Your task to perform on an android device: Empty the shopping cart on bestbuy.com. Add logitech g pro to the cart on bestbuy.com Image 0: 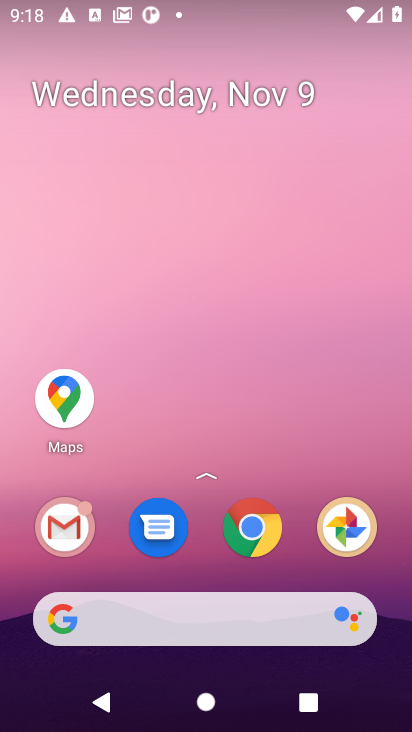
Step 0: click (265, 531)
Your task to perform on an android device: Empty the shopping cart on bestbuy.com. Add logitech g pro to the cart on bestbuy.com Image 1: 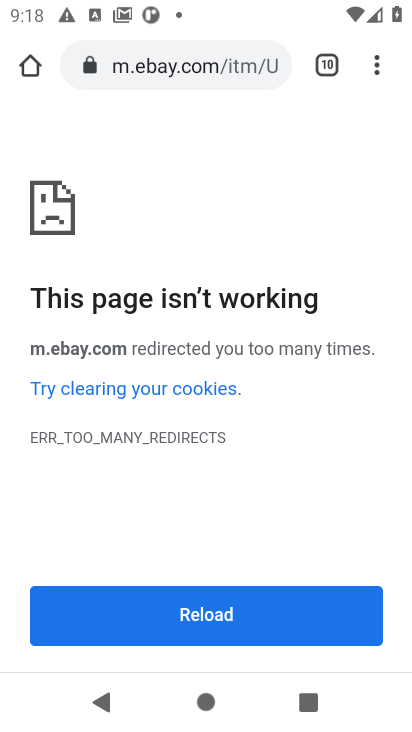
Step 1: click (199, 74)
Your task to perform on an android device: Empty the shopping cart on bestbuy.com. Add logitech g pro to the cart on bestbuy.com Image 2: 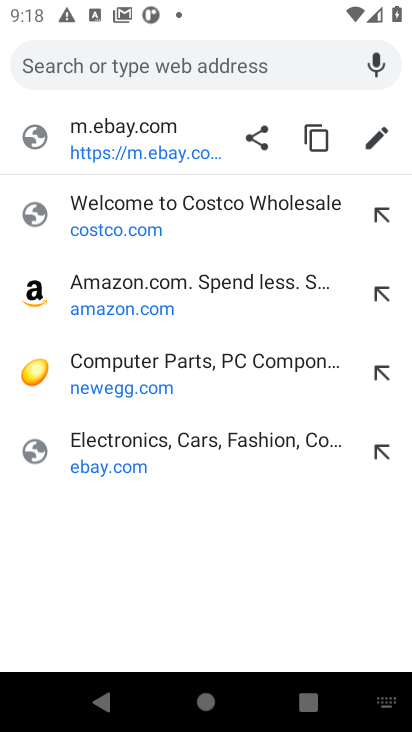
Step 2: type "bestbuy.com"
Your task to perform on an android device: Empty the shopping cart on bestbuy.com. Add logitech g pro to the cart on bestbuy.com Image 3: 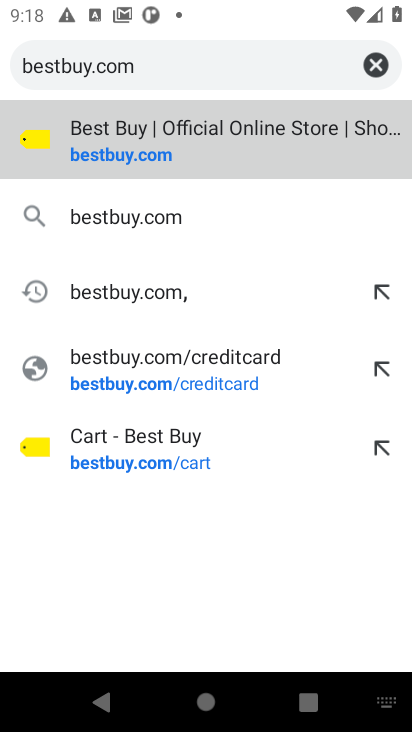
Step 3: click (146, 161)
Your task to perform on an android device: Empty the shopping cart on bestbuy.com. Add logitech g pro to the cart on bestbuy.com Image 4: 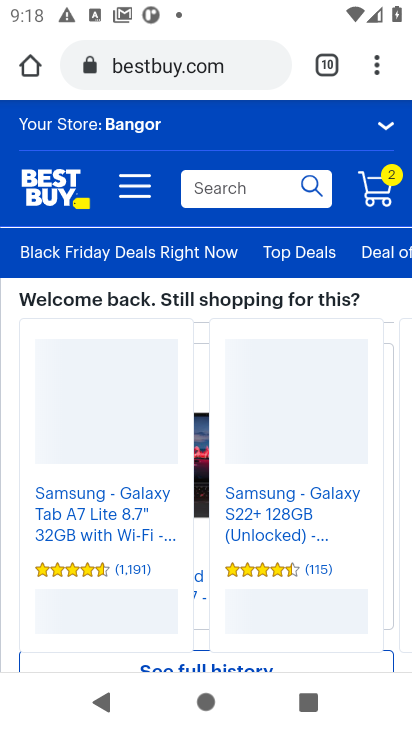
Step 4: click (371, 191)
Your task to perform on an android device: Empty the shopping cart on bestbuy.com. Add logitech g pro to the cart on bestbuy.com Image 5: 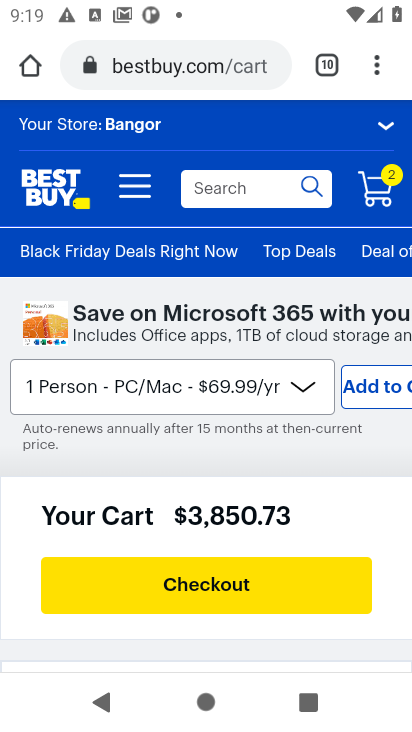
Step 5: drag from (254, 446) to (255, 234)
Your task to perform on an android device: Empty the shopping cart on bestbuy.com. Add logitech g pro to the cart on bestbuy.com Image 6: 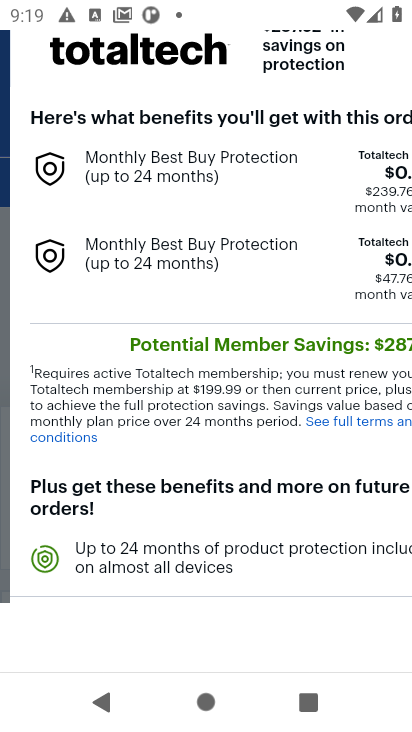
Step 6: drag from (237, 552) to (245, 224)
Your task to perform on an android device: Empty the shopping cart on bestbuy.com. Add logitech g pro to the cart on bestbuy.com Image 7: 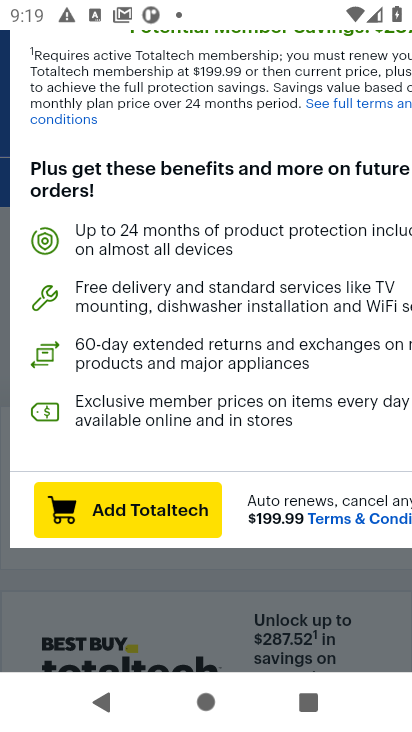
Step 7: click (360, 576)
Your task to perform on an android device: Empty the shopping cart on bestbuy.com. Add logitech g pro to the cart on bestbuy.com Image 8: 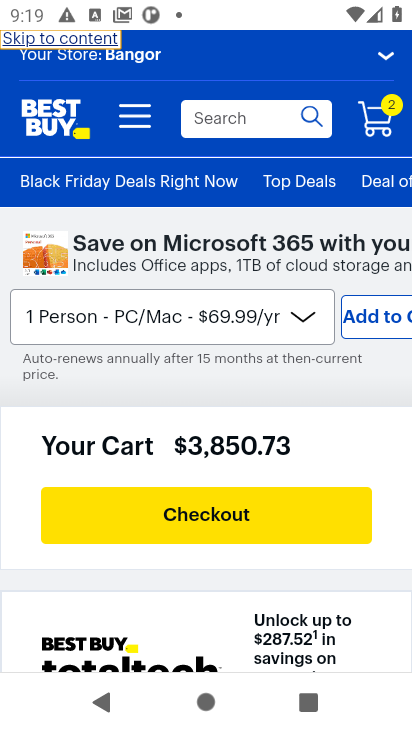
Step 8: drag from (205, 556) to (203, 247)
Your task to perform on an android device: Empty the shopping cart on bestbuy.com. Add logitech g pro to the cart on bestbuy.com Image 9: 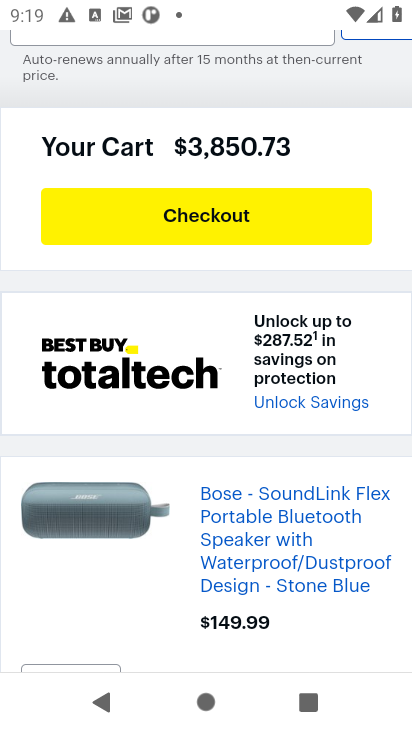
Step 9: drag from (188, 515) to (196, 287)
Your task to perform on an android device: Empty the shopping cart on bestbuy.com. Add logitech g pro to the cart on bestbuy.com Image 10: 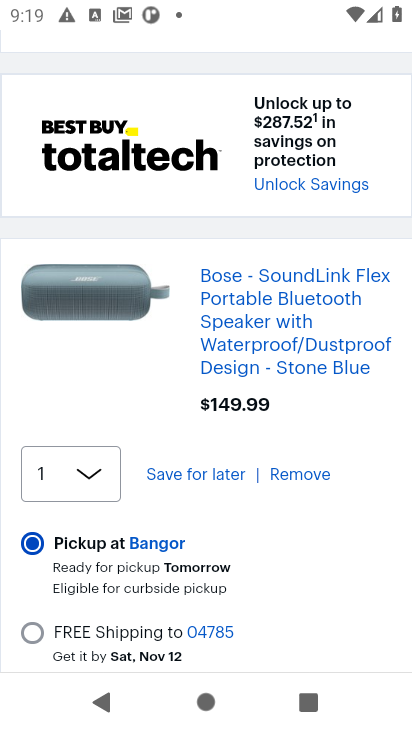
Step 10: click (289, 478)
Your task to perform on an android device: Empty the shopping cart on bestbuy.com. Add logitech g pro to the cart on bestbuy.com Image 11: 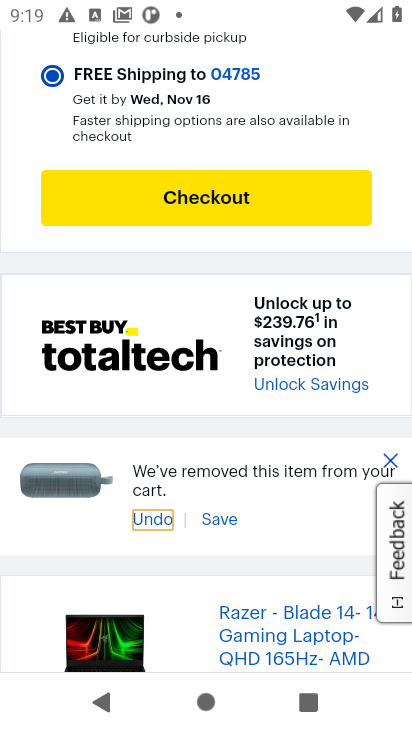
Step 11: drag from (210, 540) to (213, 220)
Your task to perform on an android device: Empty the shopping cart on bestbuy.com. Add logitech g pro to the cart on bestbuy.com Image 12: 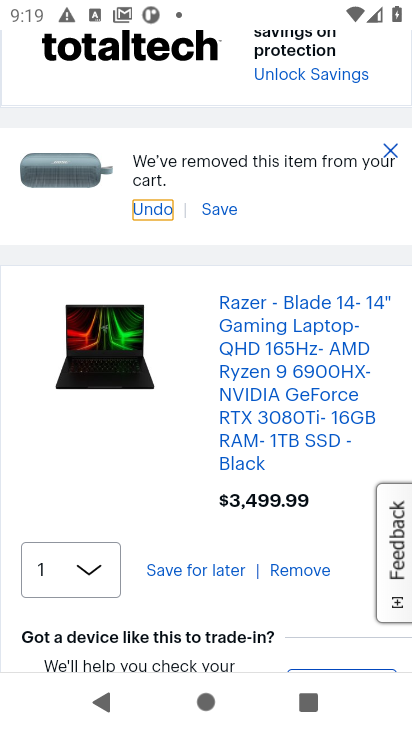
Step 12: click (284, 577)
Your task to perform on an android device: Empty the shopping cart on bestbuy.com. Add logitech g pro to the cart on bestbuy.com Image 13: 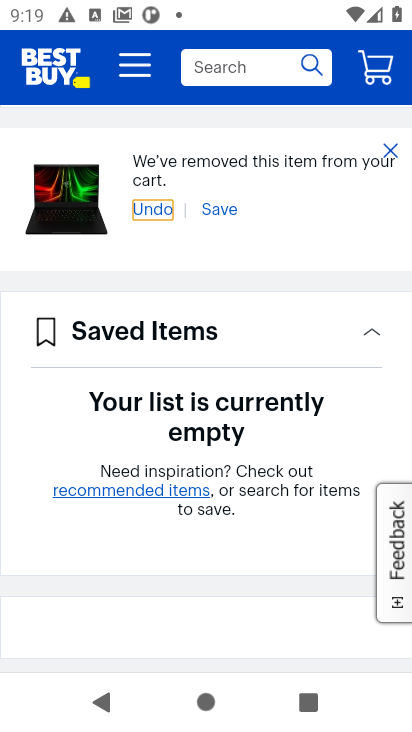
Step 13: click (221, 70)
Your task to perform on an android device: Empty the shopping cart on bestbuy.com. Add logitech g pro to the cart on bestbuy.com Image 14: 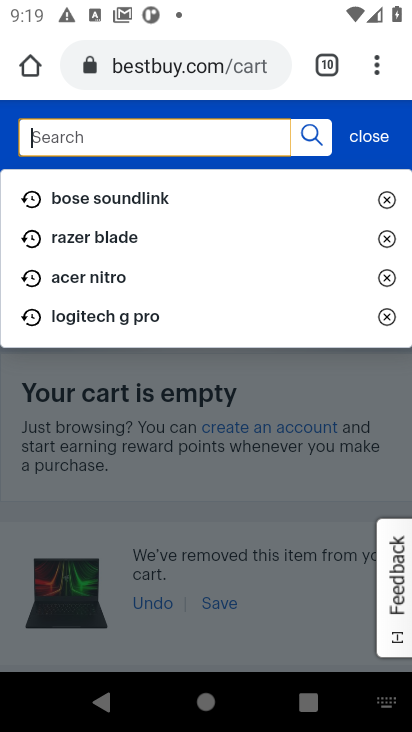
Step 14: type "logitech g pro"
Your task to perform on an android device: Empty the shopping cart on bestbuy.com. Add logitech g pro to the cart on bestbuy.com Image 15: 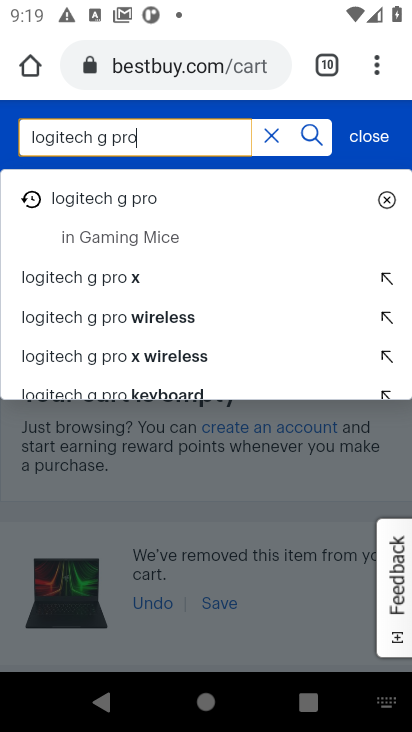
Step 15: click (76, 206)
Your task to perform on an android device: Empty the shopping cart on bestbuy.com. Add logitech g pro to the cart on bestbuy.com Image 16: 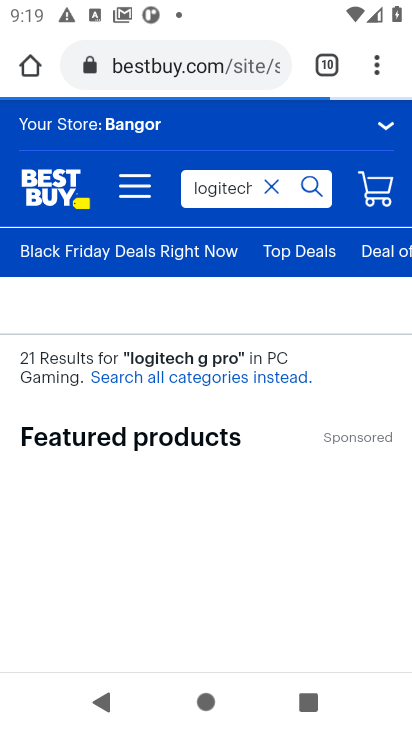
Step 16: drag from (180, 434) to (164, 148)
Your task to perform on an android device: Empty the shopping cart on bestbuy.com. Add logitech g pro to the cart on bestbuy.com Image 17: 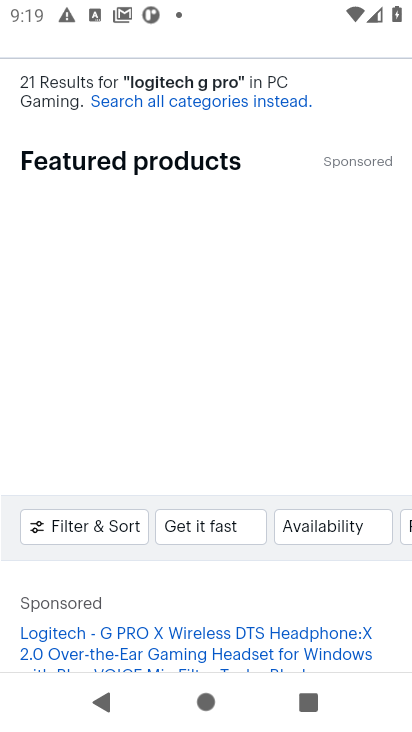
Step 17: drag from (160, 438) to (162, 211)
Your task to perform on an android device: Empty the shopping cart on bestbuy.com. Add logitech g pro to the cart on bestbuy.com Image 18: 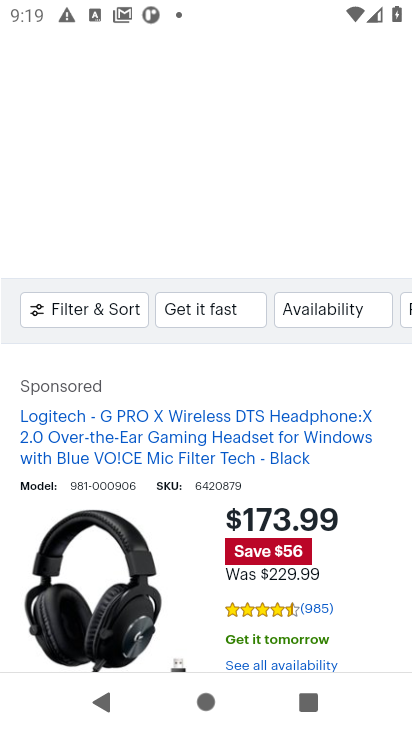
Step 18: drag from (183, 521) to (171, 311)
Your task to perform on an android device: Empty the shopping cart on bestbuy.com. Add logitech g pro to the cart on bestbuy.com Image 19: 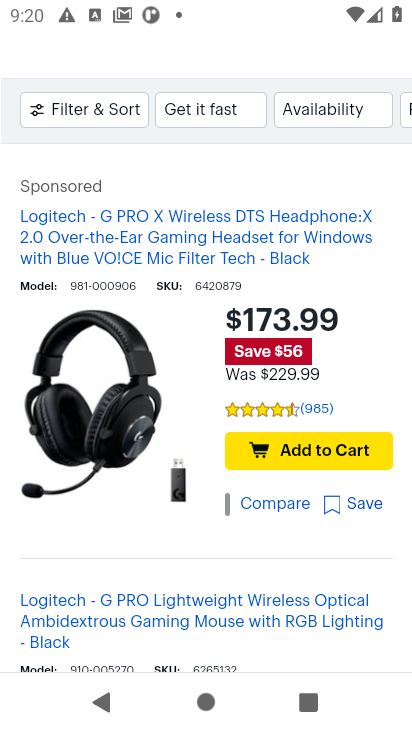
Step 19: click (293, 507)
Your task to perform on an android device: Empty the shopping cart on bestbuy.com. Add logitech g pro to the cart on bestbuy.com Image 20: 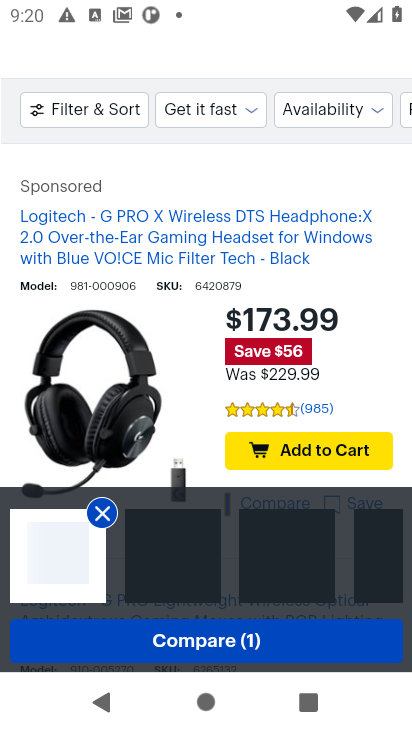
Step 20: click (298, 450)
Your task to perform on an android device: Empty the shopping cart on bestbuy.com. Add logitech g pro to the cart on bestbuy.com Image 21: 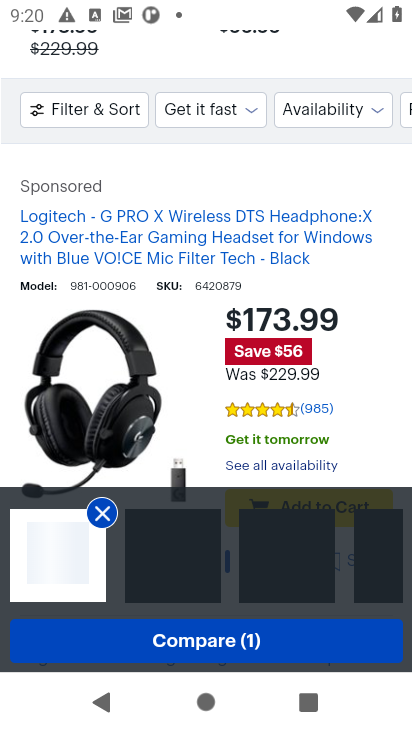
Step 21: drag from (369, 455) to (373, 310)
Your task to perform on an android device: Empty the shopping cart on bestbuy.com. Add logitech g pro to the cart on bestbuy.com Image 22: 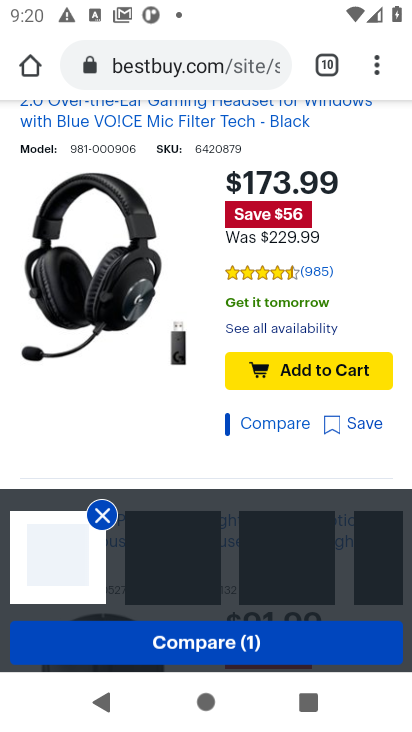
Step 22: click (298, 362)
Your task to perform on an android device: Empty the shopping cart on bestbuy.com. Add logitech g pro to the cart on bestbuy.com Image 23: 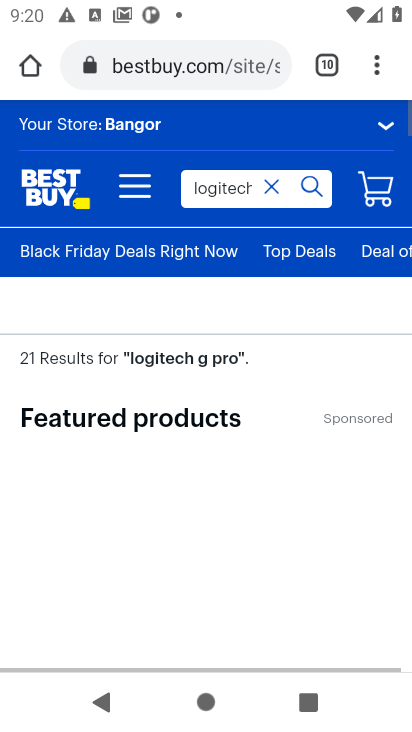
Step 23: drag from (209, 489) to (232, 232)
Your task to perform on an android device: Empty the shopping cart on bestbuy.com. Add logitech g pro to the cart on bestbuy.com Image 24: 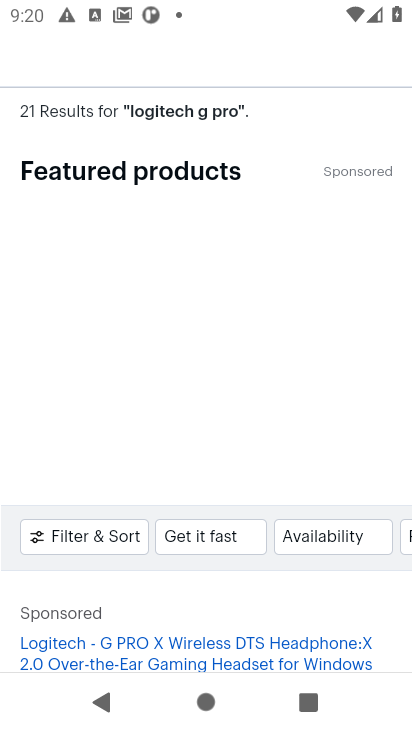
Step 24: drag from (200, 498) to (219, 245)
Your task to perform on an android device: Empty the shopping cart on bestbuy.com. Add logitech g pro to the cart on bestbuy.com Image 25: 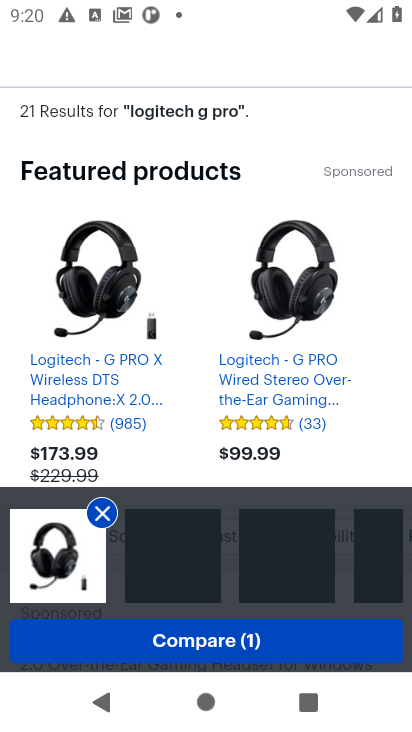
Step 25: drag from (176, 405) to (193, 236)
Your task to perform on an android device: Empty the shopping cart on bestbuy.com. Add logitech g pro to the cart on bestbuy.com Image 26: 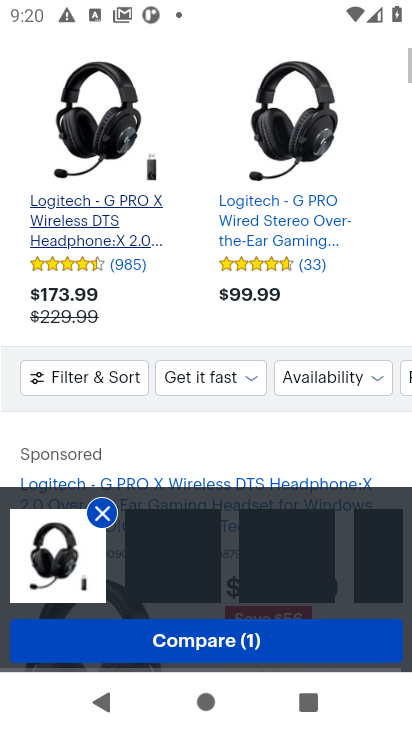
Step 26: drag from (193, 236) to (183, 692)
Your task to perform on an android device: Empty the shopping cart on bestbuy.com. Add logitech g pro to the cart on bestbuy.com Image 27: 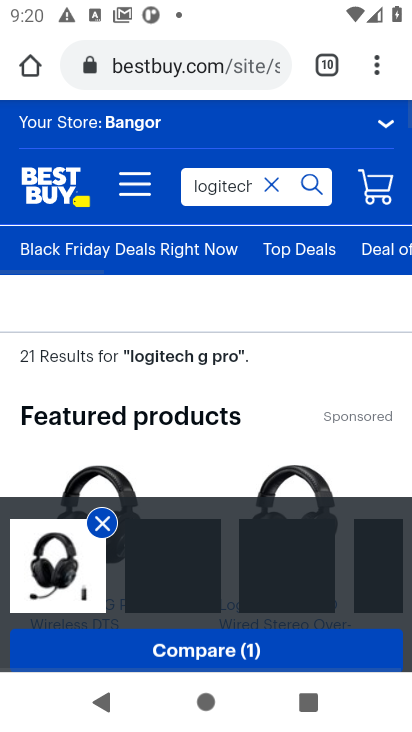
Step 27: drag from (214, 446) to (206, 169)
Your task to perform on an android device: Empty the shopping cart on bestbuy.com. Add logitech g pro to the cart on bestbuy.com Image 28: 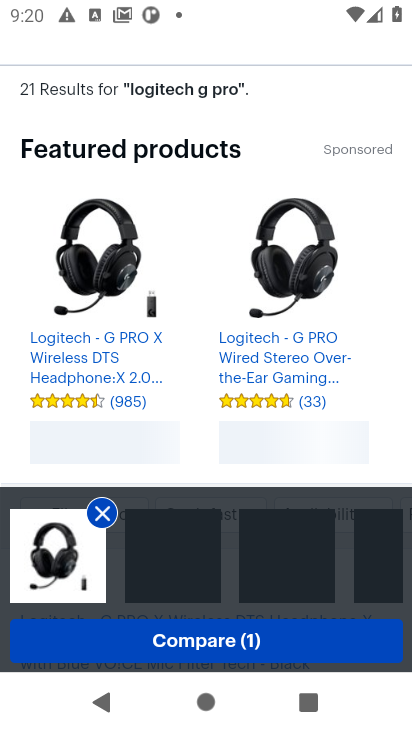
Step 28: drag from (179, 408) to (190, 126)
Your task to perform on an android device: Empty the shopping cart on bestbuy.com. Add logitech g pro to the cart on bestbuy.com Image 29: 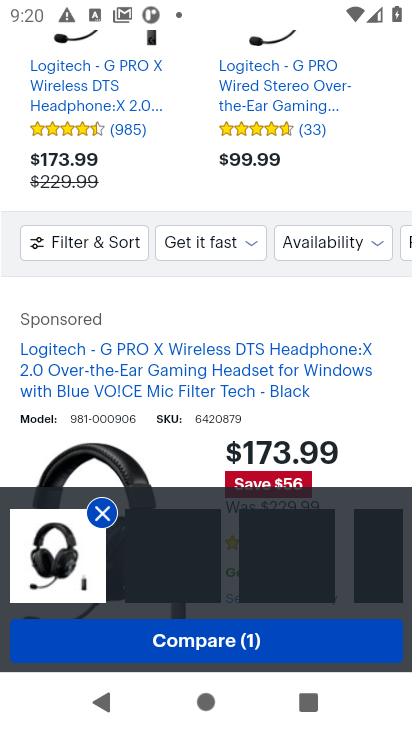
Step 29: drag from (180, 362) to (189, 151)
Your task to perform on an android device: Empty the shopping cart on bestbuy.com. Add logitech g pro to the cart on bestbuy.com Image 30: 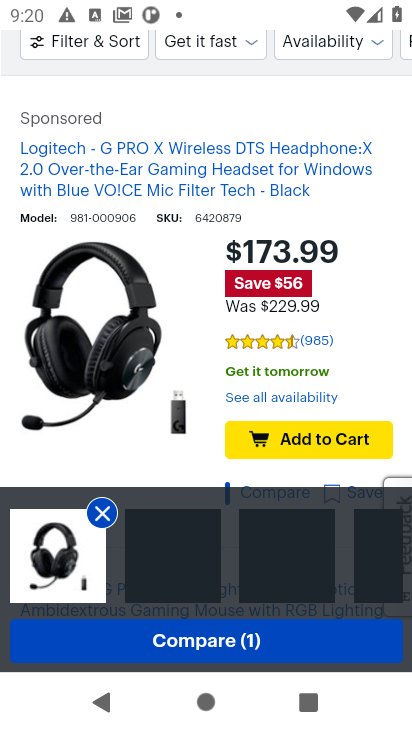
Step 30: click (296, 428)
Your task to perform on an android device: Empty the shopping cart on bestbuy.com. Add logitech g pro to the cart on bestbuy.com Image 31: 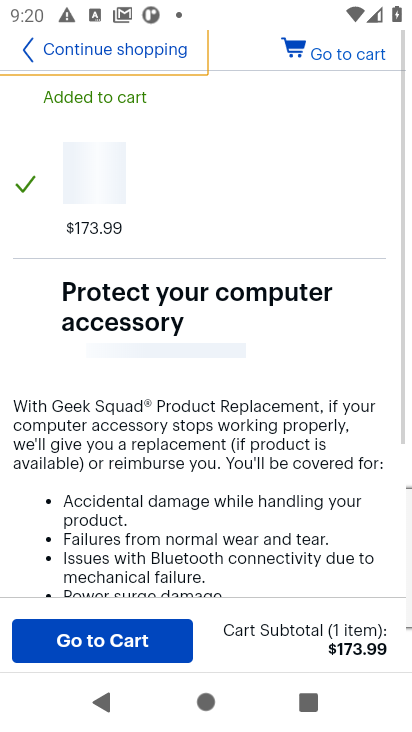
Step 31: task complete